Your task to perform on an android device: find which apps use the phone's location Image 0: 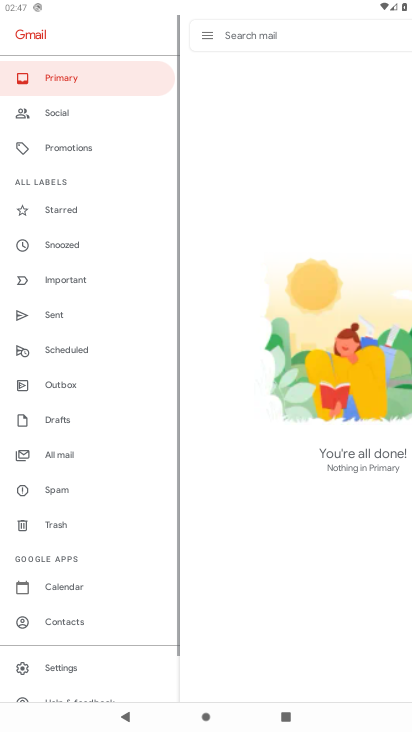
Step 0: drag from (78, 644) to (240, 120)
Your task to perform on an android device: find which apps use the phone's location Image 1: 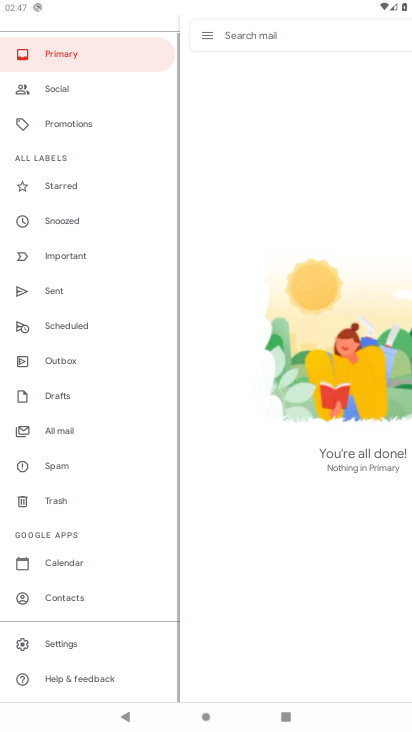
Step 1: press home button
Your task to perform on an android device: find which apps use the phone's location Image 2: 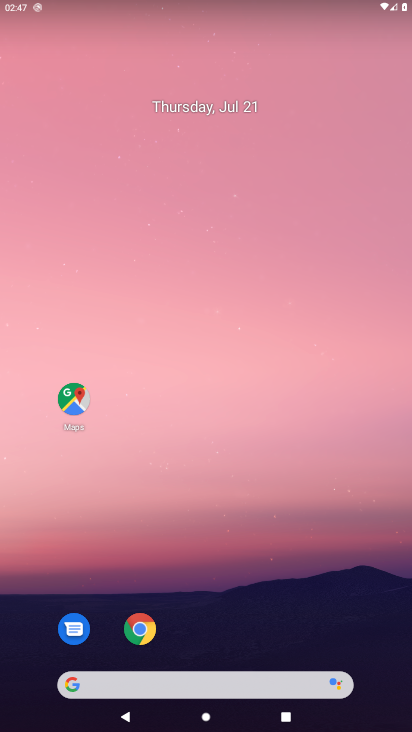
Step 2: drag from (25, 701) to (167, 110)
Your task to perform on an android device: find which apps use the phone's location Image 3: 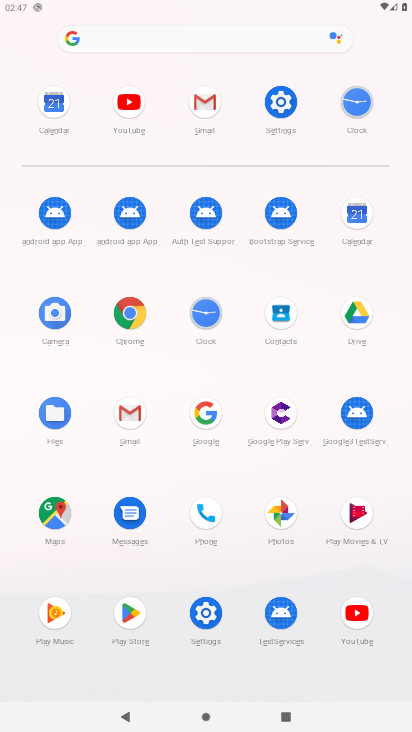
Step 3: click (196, 617)
Your task to perform on an android device: find which apps use the phone's location Image 4: 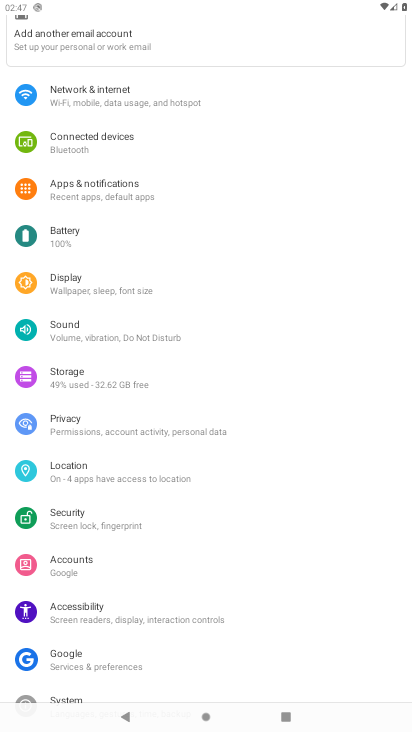
Step 4: click (97, 184)
Your task to perform on an android device: find which apps use the phone's location Image 5: 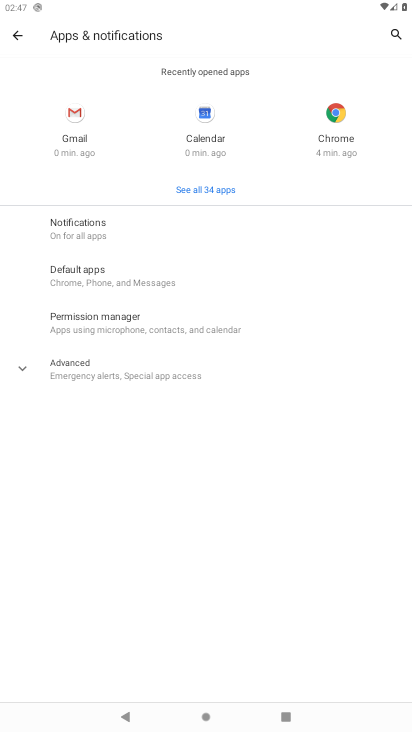
Step 5: click (64, 322)
Your task to perform on an android device: find which apps use the phone's location Image 6: 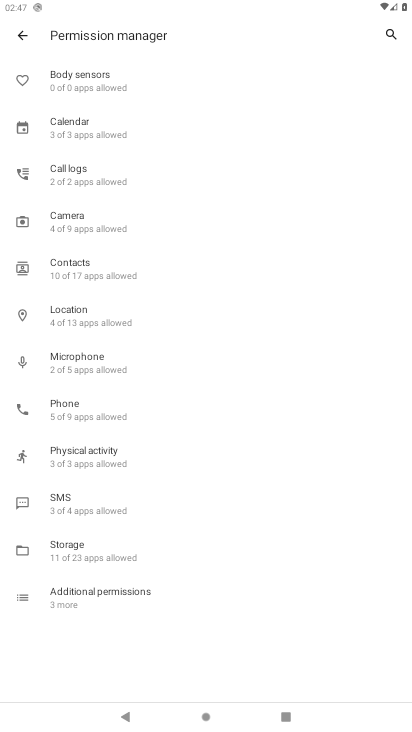
Step 6: task complete